Your task to perform on an android device: Turn on the flashlight Image 0: 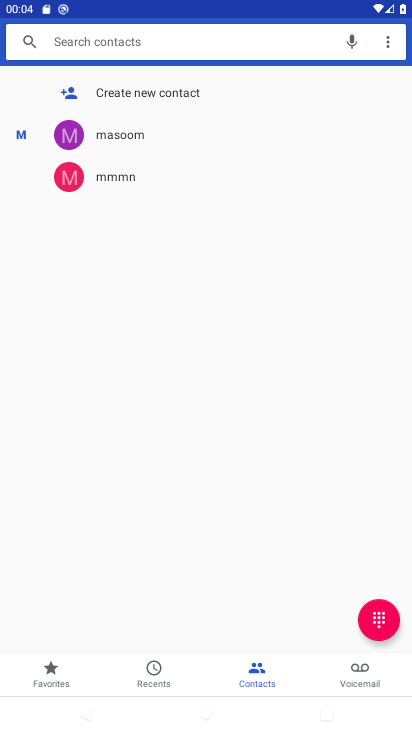
Step 0: press home button
Your task to perform on an android device: Turn on the flashlight Image 1: 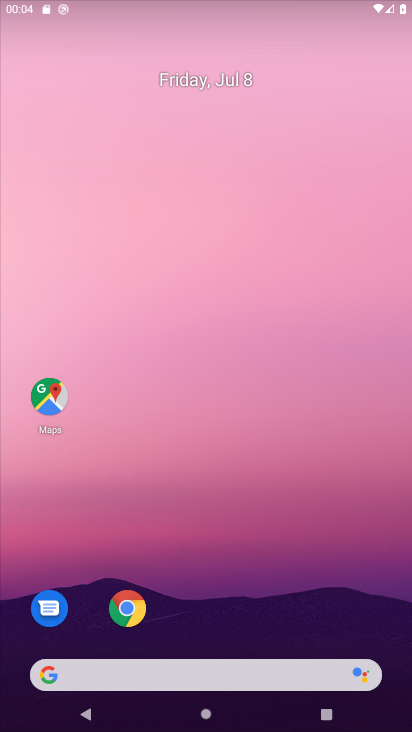
Step 1: drag from (263, 594) to (247, 223)
Your task to perform on an android device: Turn on the flashlight Image 2: 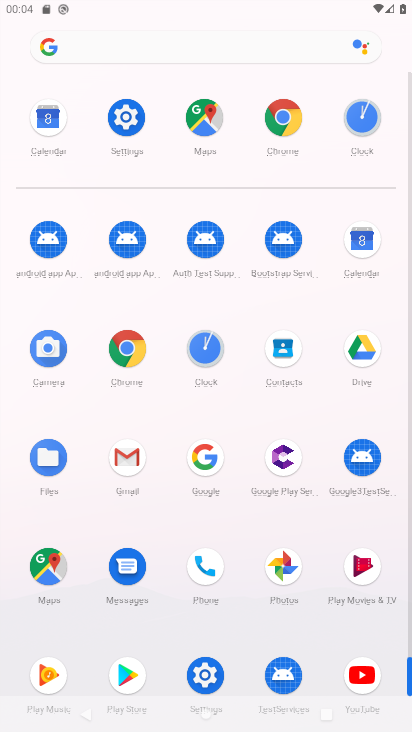
Step 2: click (116, 115)
Your task to perform on an android device: Turn on the flashlight Image 3: 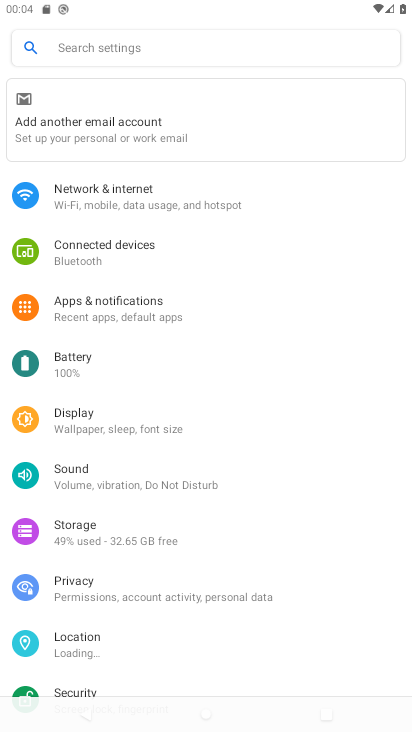
Step 3: task complete